Your task to perform on an android device: open wifi settings Image 0: 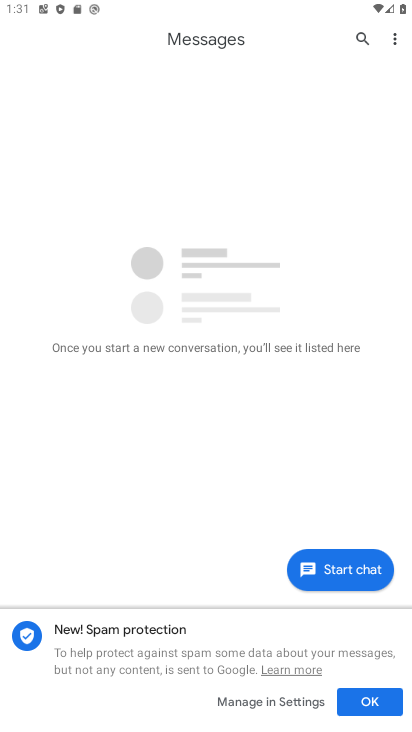
Step 0: press home button
Your task to perform on an android device: open wifi settings Image 1: 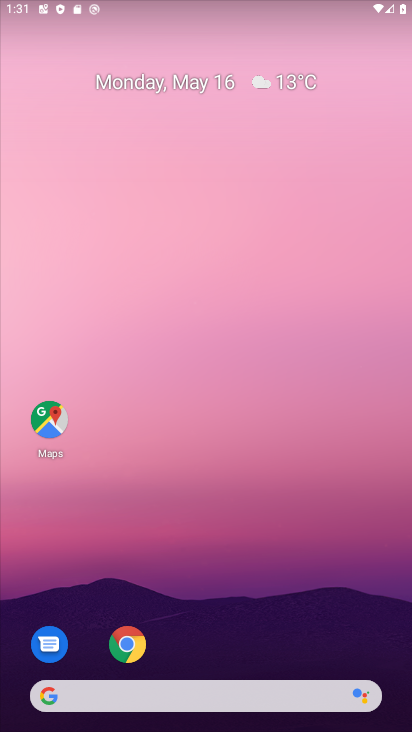
Step 1: drag from (234, 464) to (245, 330)
Your task to perform on an android device: open wifi settings Image 2: 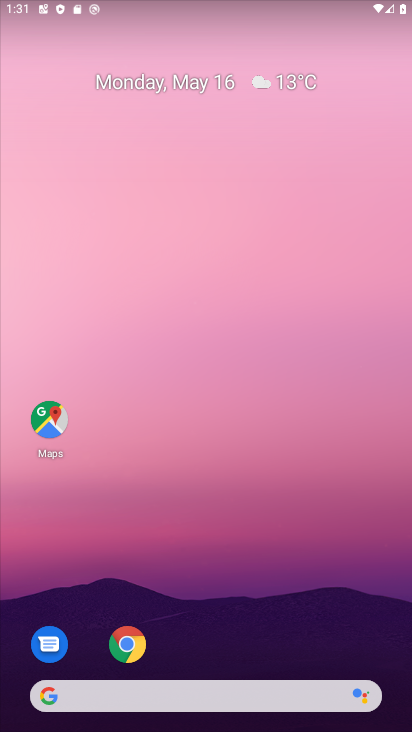
Step 2: drag from (199, 573) to (188, 154)
Your task to perform on an android device: open wifi settings Image 3: 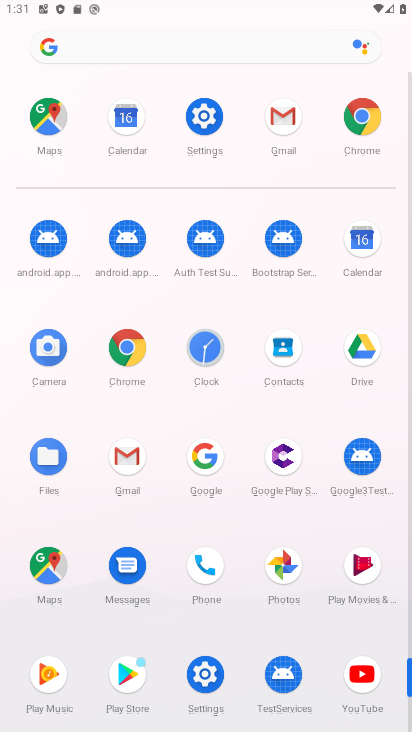
Step 3: click (212, 137)
Your task to perform on an android device: open wifi settings Image 4: 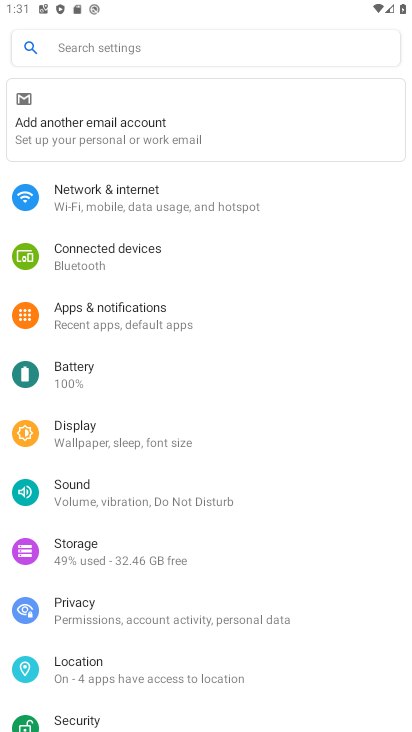
Step 4: click (144, 191)
Your task to perform on an android device: open wifi settings Image 5: 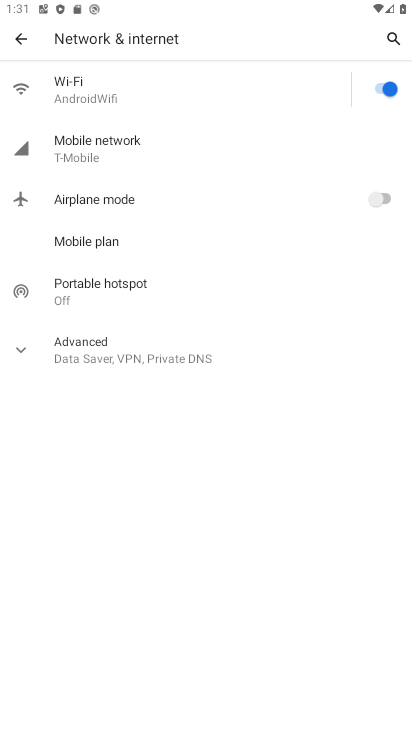
Step 5: click (221, 98)
Your task to perform on an android device: open wifi settings Image 6: 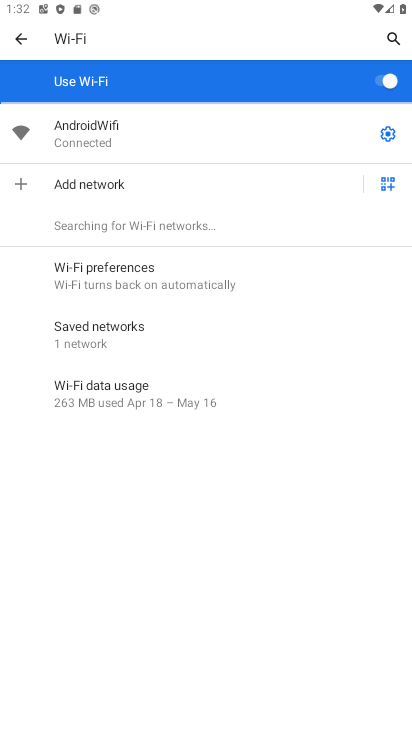
Step 6: task complete